Your task to perform on an android device: Open Reddit.com Image 0: 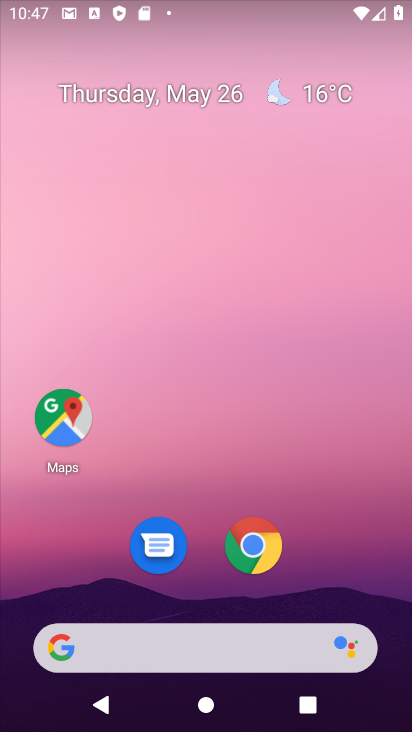
Step 0: press home button
Your task to perform on an android device: Open Reddit.com Image 1: 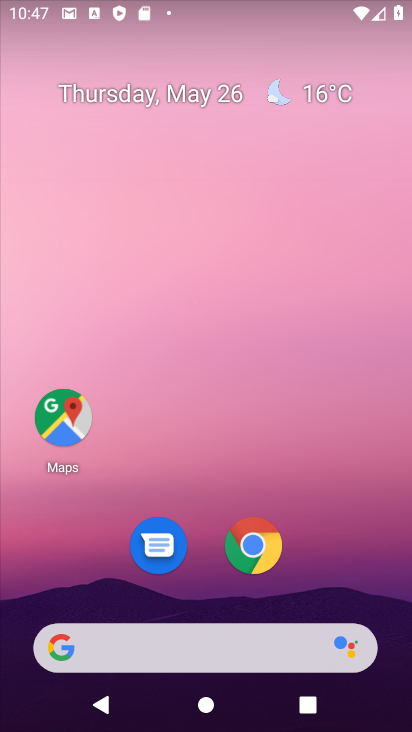
Step 1: click (54, 652)
Your task to perform on an android device: Open Reddit.com Image 2: 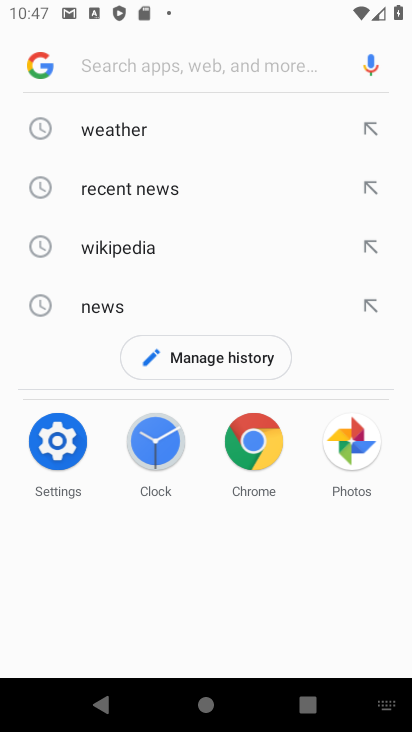
Step 2: type "Reddit.com"
Your task to perform on an android device: Open Reddit.com Image 3: 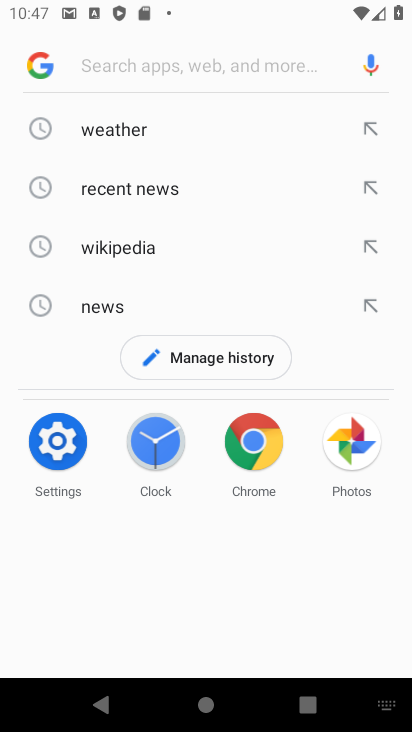
Step 3: click (228, 61)
Your task to perform on an android device: Open Reddit.com Image 4: 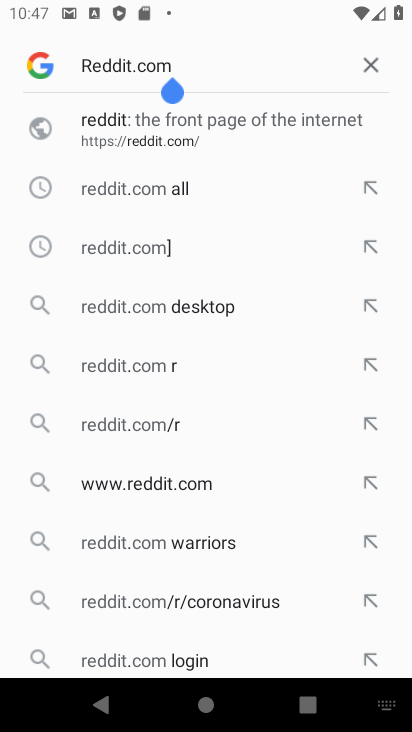
Step 4: click (110, 120)
Your task to perform on an android device: Open Reddit.com Image 5: 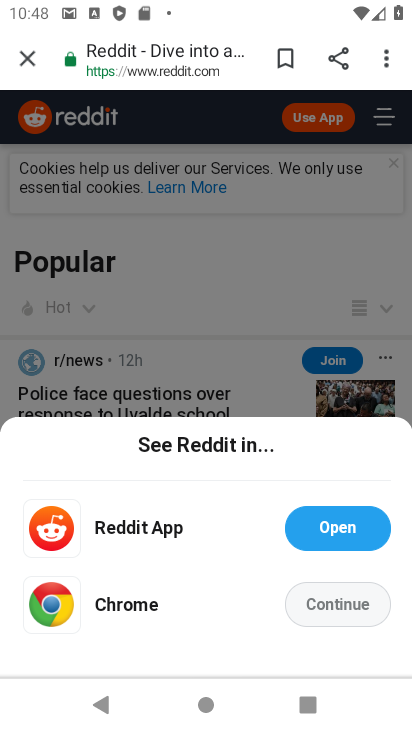
Step 5: task complete